Your task to perform on an android device: Turn on the flashlight Image 0: 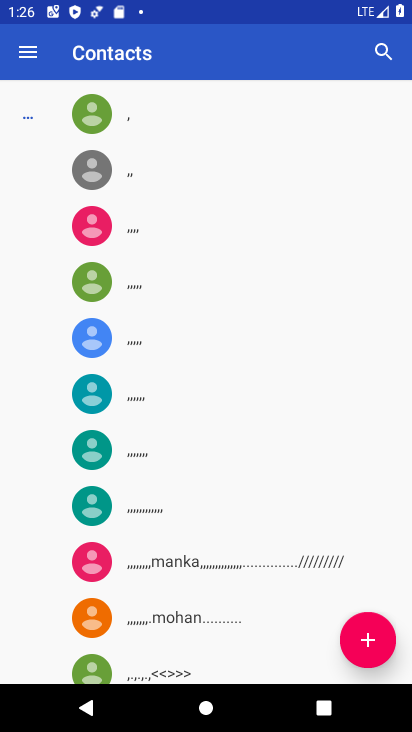
Step 0: drag from (353, 1) to (234, 622)
Your task to perform on an android device: Turn on the flashlight Image 1: 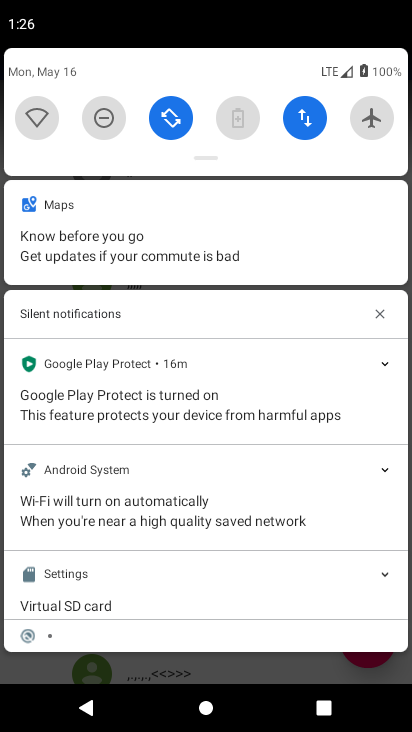
Step 1: task complete